Your task to perform on an android device: turn on the 12-hour format for clock Image 0: 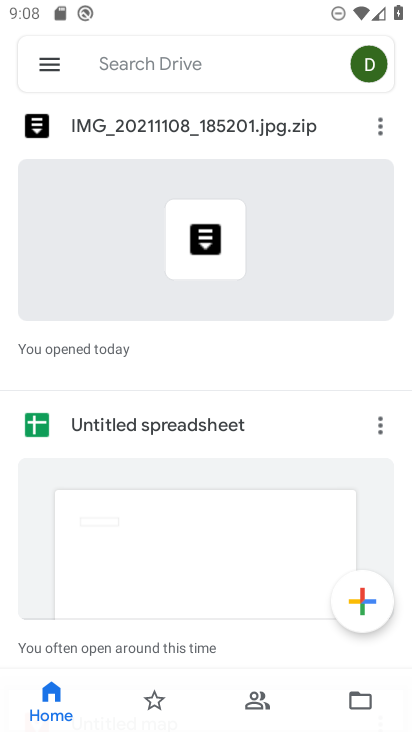
Step 0: press home button
Your task to perform on an android device: turn on the 12-hour format for clock Image 1: 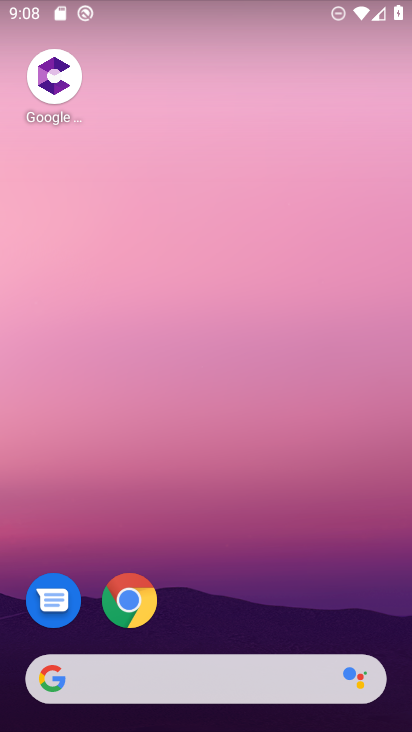
Step 1: drag from (181, 653) to (190, 251)
Your task to perform on an android device: turn on the 12-hour format for clock Image 2: 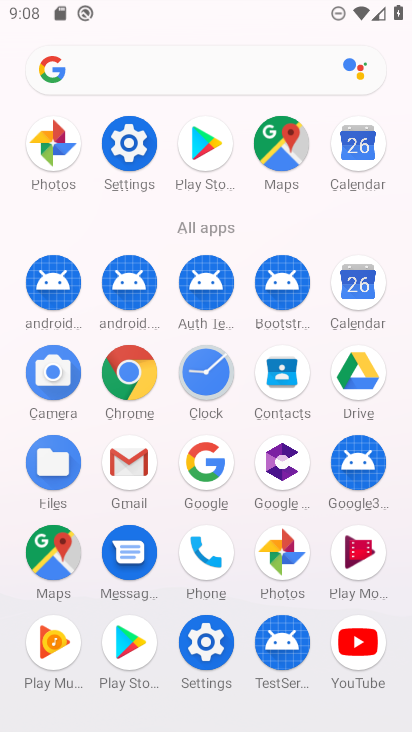
Step 2: click (130, 137)
Your task to perform on an android device: turn on the 12-hour format for clock Image 3: 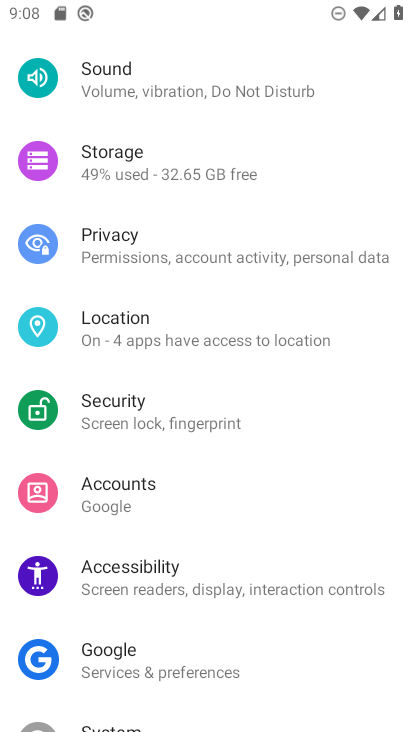
Step 3: press home button
Your task to perform on an android device: turn on the 12-hour format for clock Image 4: 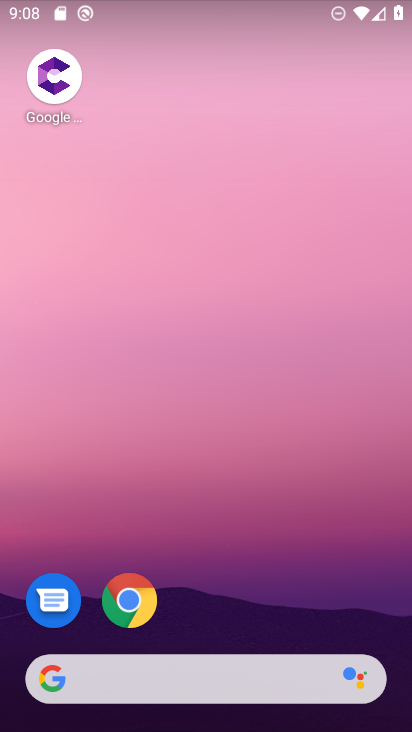
Step 4: drag from (230, 529) to (282, 180)
Your task to perform on an android device: turn on the 12-hour format for clock Image 5: 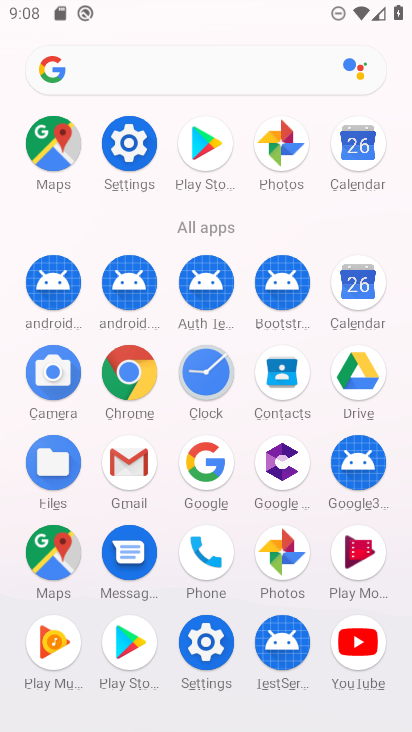
Step 5: click (213, 371)
Your task to perform on an android device: turn on the 12-hour format for clock Image 6: 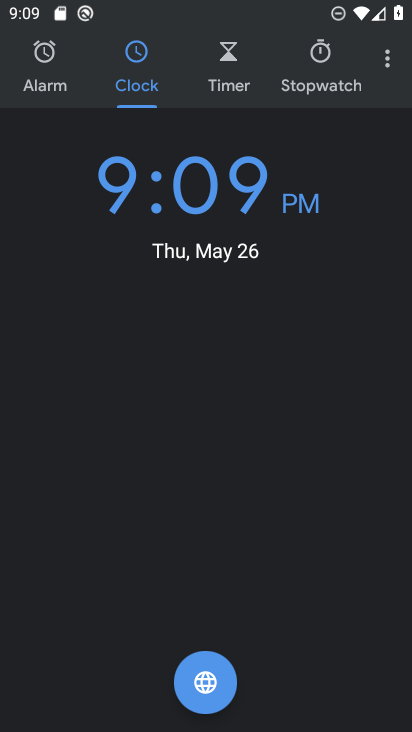
Step 6: click (384, 61)
Your task to perform on an android device: turn on the 12-hour format for clock Image 7: 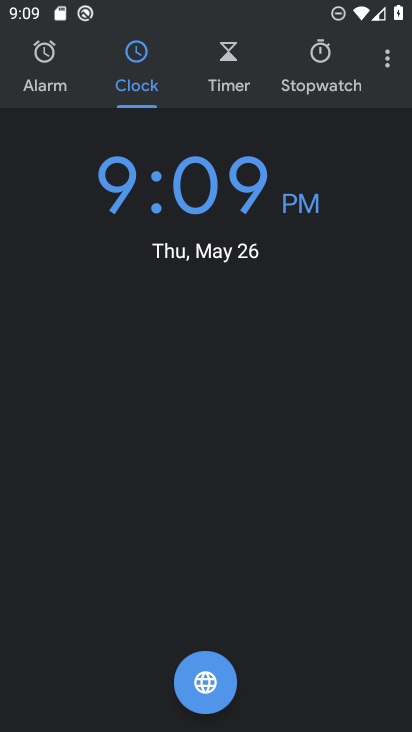
Step 7: click (392, 60)
Your task to perform on an android device: turn on the 12-hour format for clock Image 8: 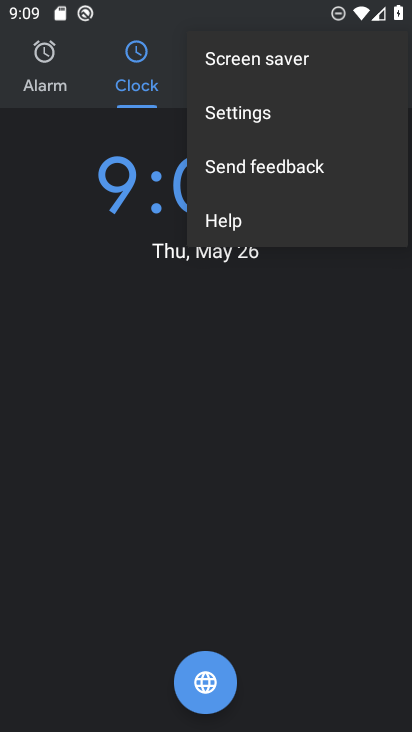
Step 8: click (247, 114)
Your task to perform on an android device: turn on the 12-hour format for clock Image 9: 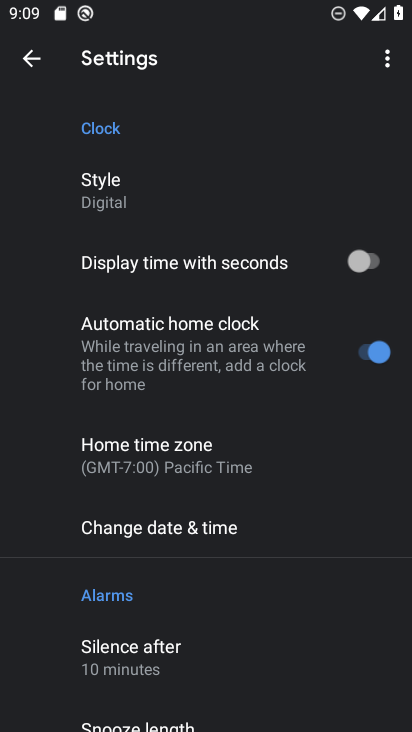
Step 9: task complete